Your task to perform on an android device: What's on my calendar today? Image 0: 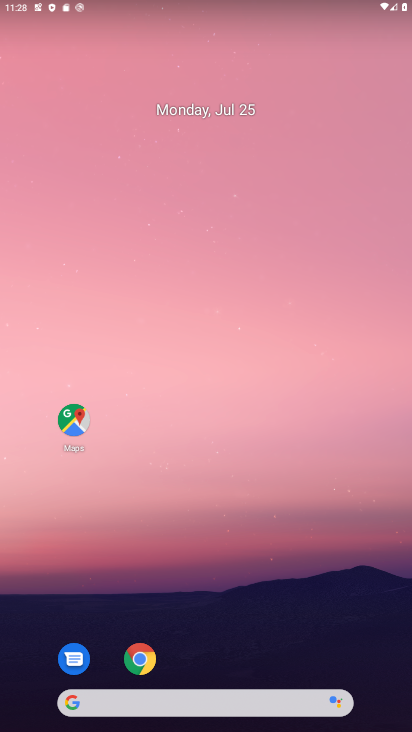
Step 0: drag from (17, 691) to (244, 235)
Your task to perform on an android device: What's on my calendar today? Image 1: 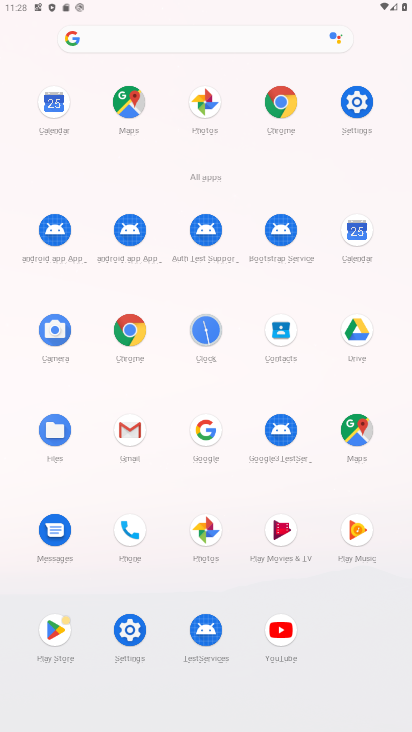
Step 1: click (344, 238)
Your task to perform on an android device: What's on my calendar today? Image 2: 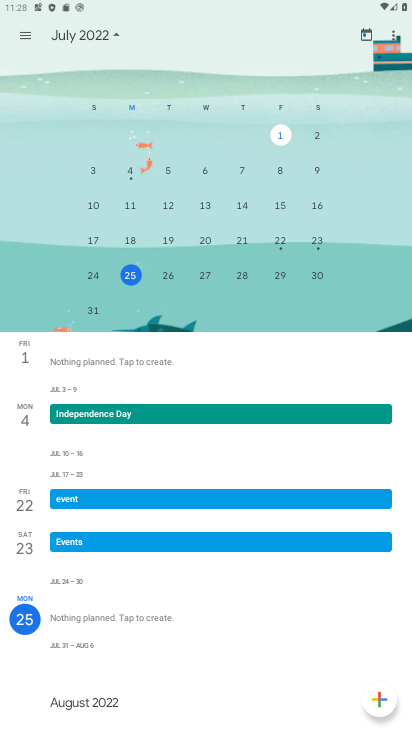
Step 2: task complete